Your task to perform on an android device: create a new album in the google photos Image 0: 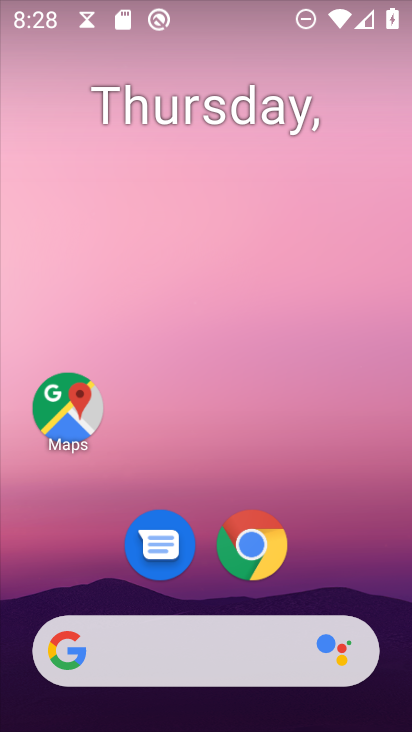
Step 0: drag from (335, 573) to (261, 21)
Your task to perform on an android device: create a new album in the google photos Image 1: 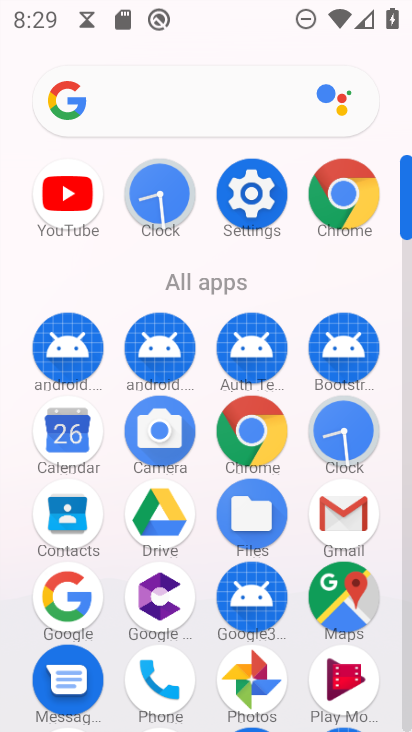
Step 1: drag from (209, 471) to (201, 317)
Your task to perform on an android device: create a new album in the google photos Image 2: 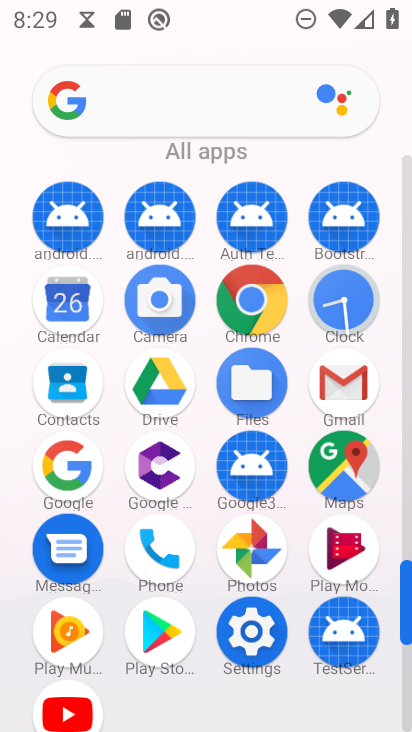
Step 2: click (252, 547)
Your task to perform on an android device: create a new album in the google photos Image 3: 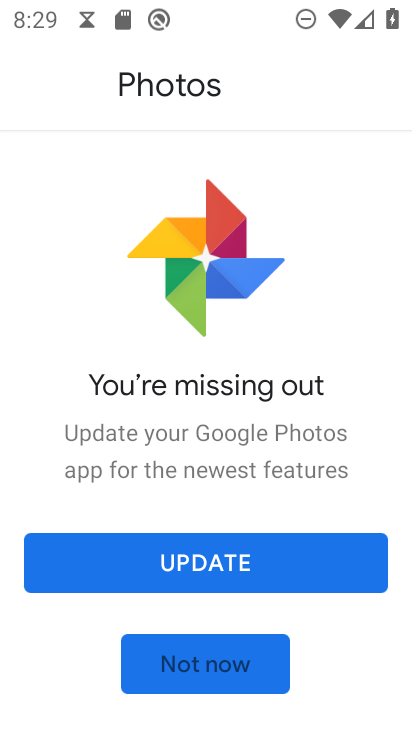
Step 3: click (246, 571)
Your task to perform on an android device: create a new album in the google photos Image 4: 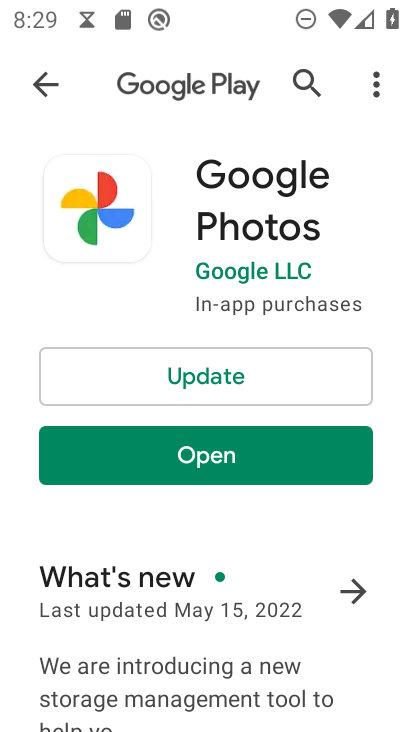
Step 4: click (263, 384)
Your task to perform on an android device: create a new album in the google photos Image 5: 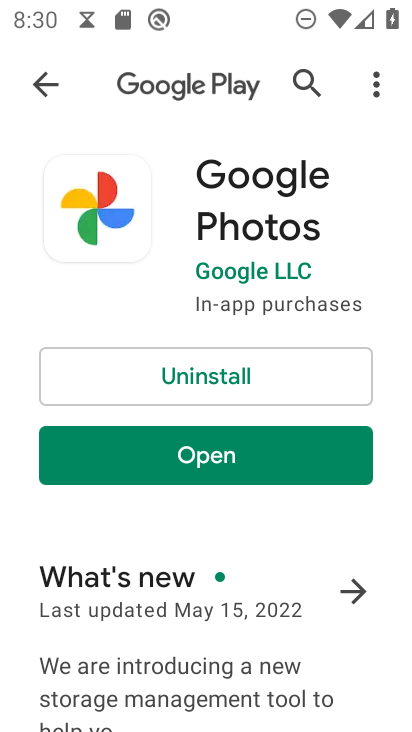
Step 5: click (253, 461)
Your task to perform on an android device: create a new album in the google photos Image 6: 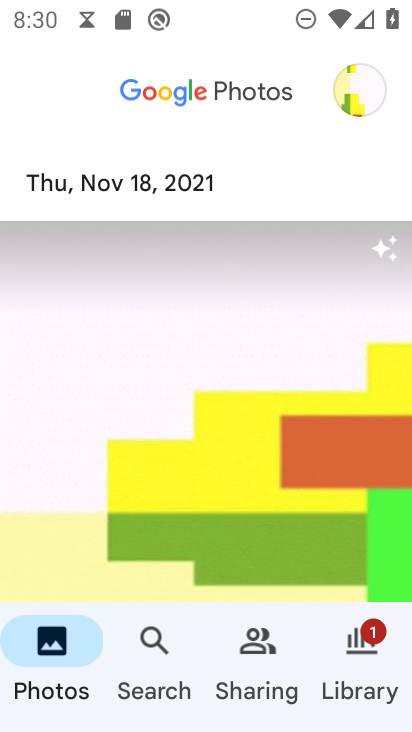
Step 6: click (349, 659)
Your task to perform on an android device: create a new album in the google photos Image 7: 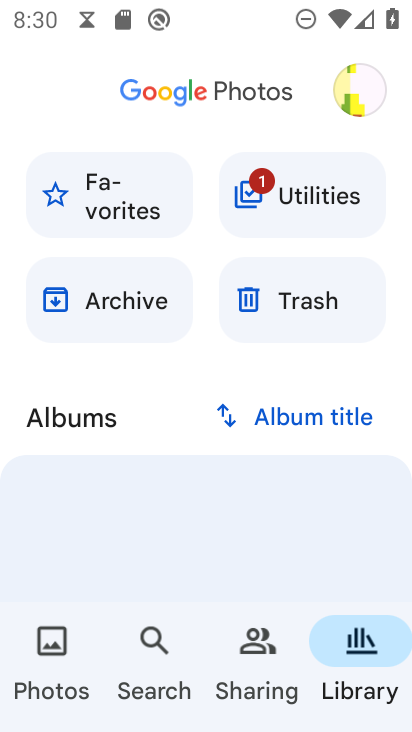
Step 7: drag from (202, 522) to (296, 340)
Your task to perform on an android device: create a new album in the google photos Image 8: 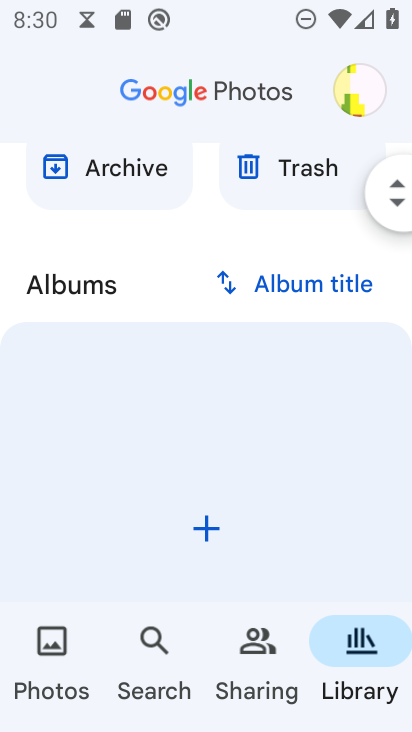
Step 8: click (210, 520)
Your task to perform on an android device: create a new album in the google photos Image 9: 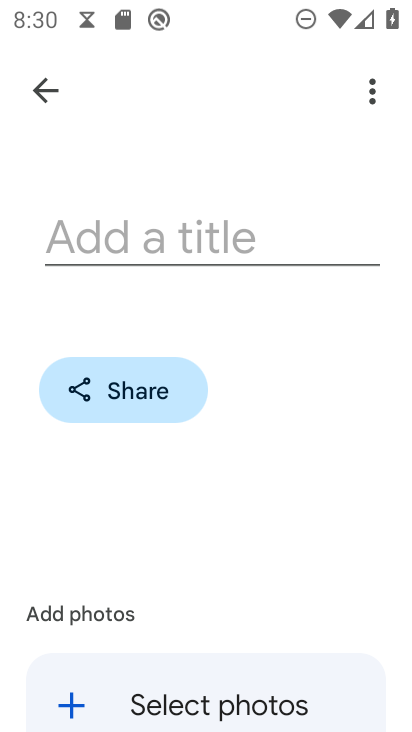
Step 9: click (256, 232)
Your task to perform on an android device: create a new album in the google photos Image 10: 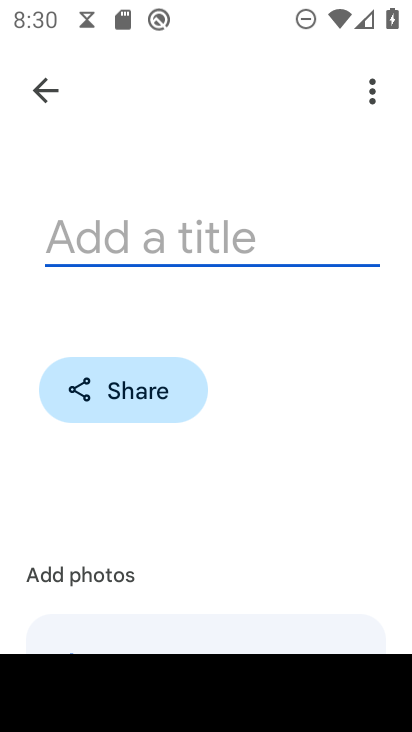
Step 10: type "Lily"
Your task to perform on an android device: create a new album in the google photos Image 11: 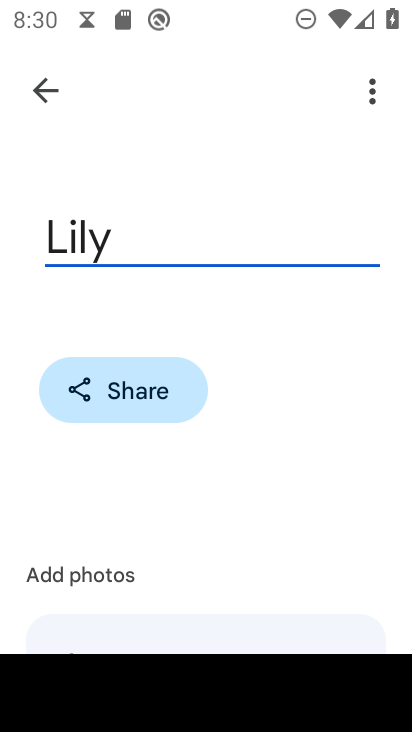
Step 11: drag from (177, 512) to (271, 369)
Your task to perform on an android device: create a new album in the google photos Image 12: 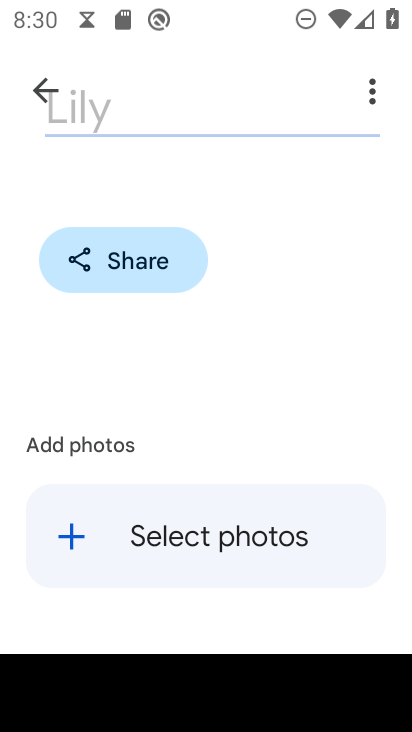
Step 12: click (71, 534)
Your task to perform on an android device: create a new album in the google photos Image 13: 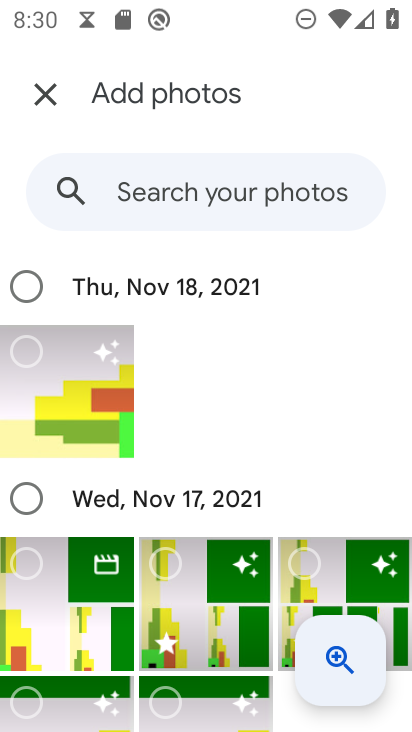
Step 13: click (25, 287)
Your task to perform on an android device: create a new album in the google photos Image 14: 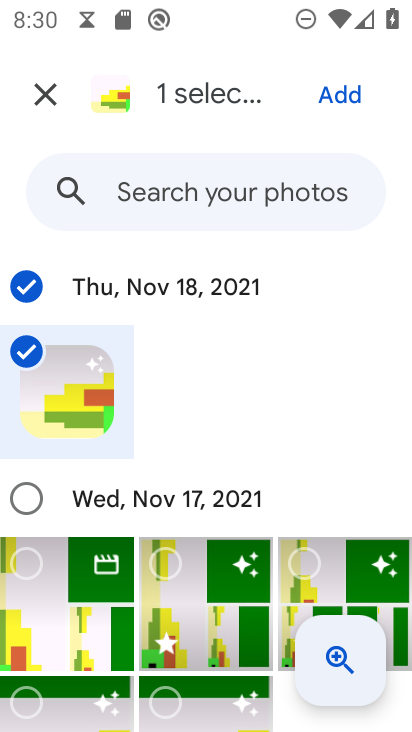
Step 14: click (343, 94)
Your task to perform on an android device: create a new album in the google photos Image 15: 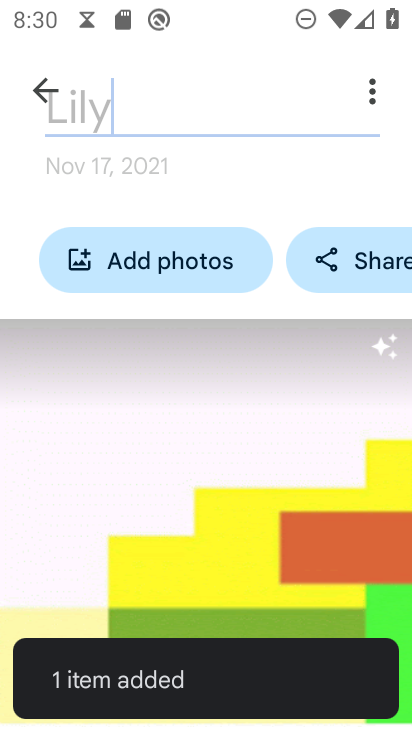
Step 15: task complete